Your task to perform on an android device: set the timer Image 0: 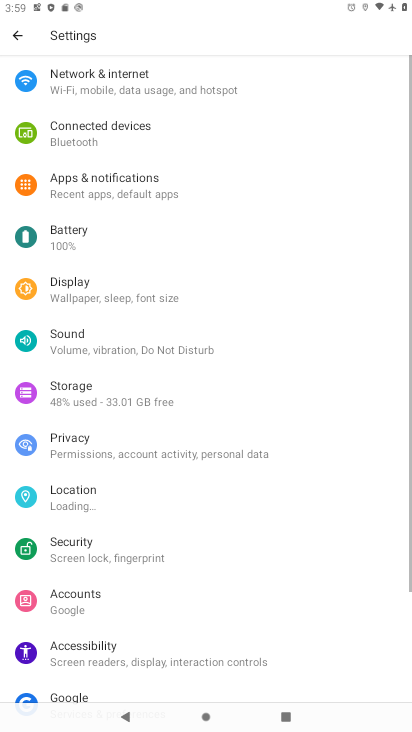
Step 0: drag from (273, 666) to (177, 164)
Your task to perform on an android device: set the timer Image 1: 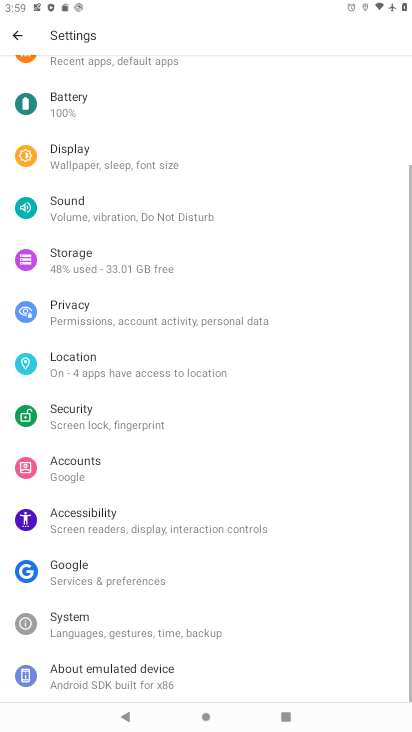
Step 1: click (22, 32)
Your task to perform on an android device: set the timer Image 2: 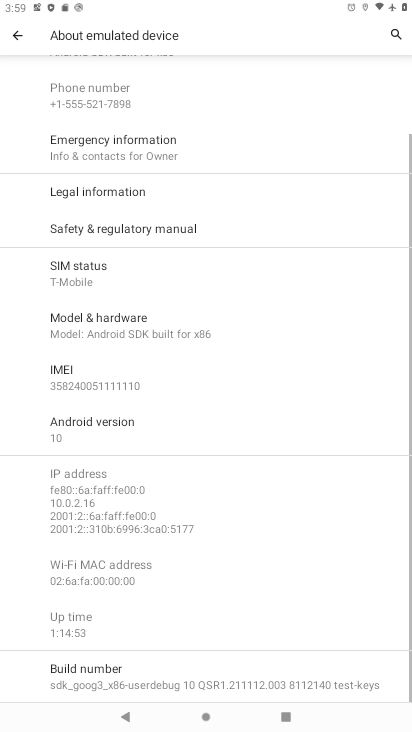
Step 2: press back button
Your task to perform on an android device: set the timer Image 3: 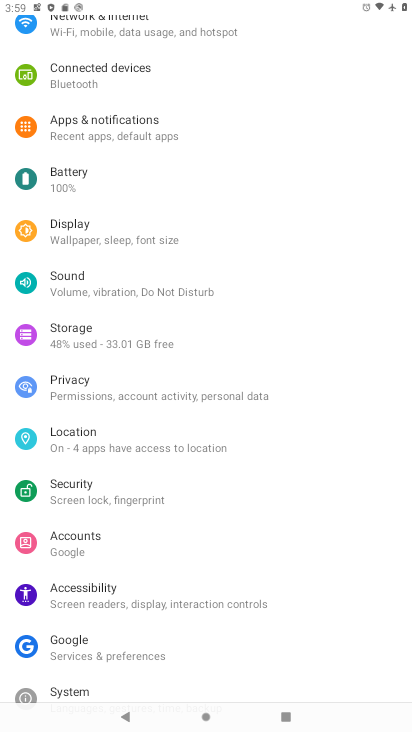
Step 3: press home button
Your task to perform on an android device: set the timer Image 4: 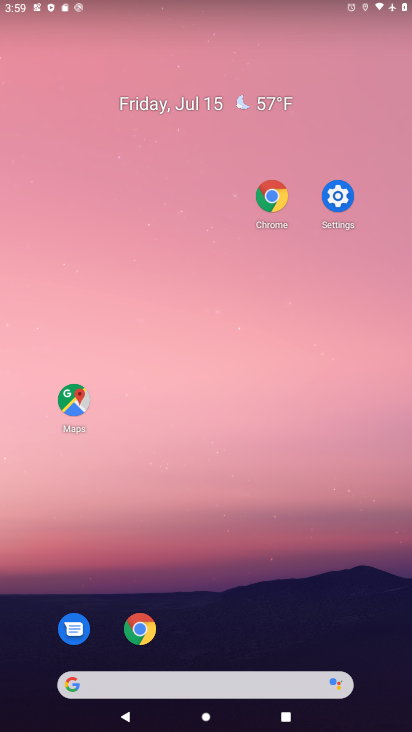
Step 4: drag from (184, 555) to (199, 240)
Your task to perform on an android device: set the timer Image 5: 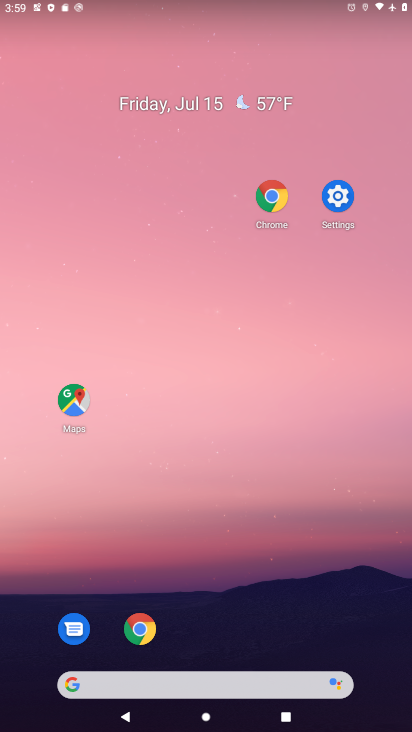
Step 5: drag from (229, 529) to (155, 107)
Your task to perform on an android device: set the timer Image 6: 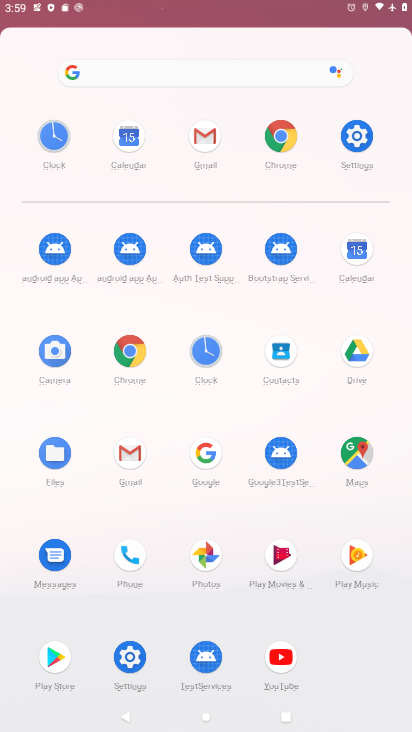
Step 6: drag from (221, 596) to (58, 153)
Your task to perform on an android device: set the timer Image 7: 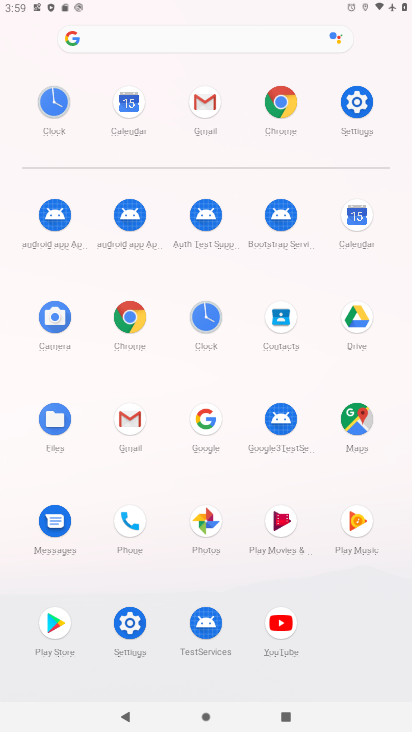
Step 7: click (215, 319)
Your task to perform on an android device: set the timer Image 8: 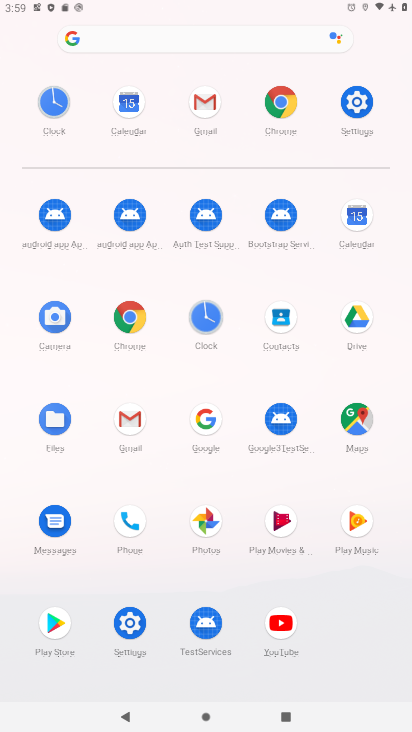
Step 8: click (215, 319)
Your task to perform on an android device: set the timer Image 9: 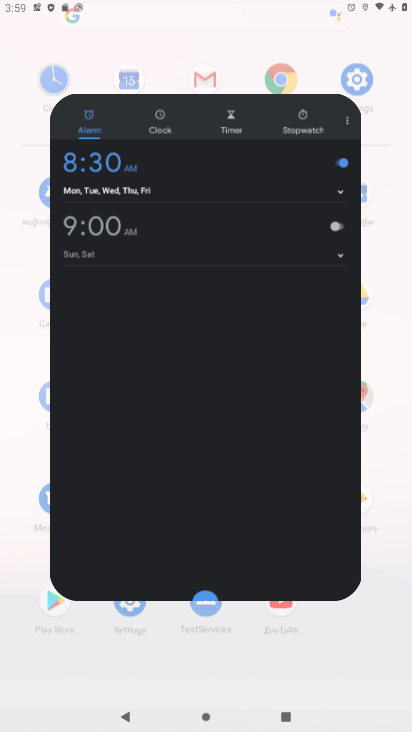
Step 9: click (208, 316)
Your task to perform on an android device: set the timer Image 10: 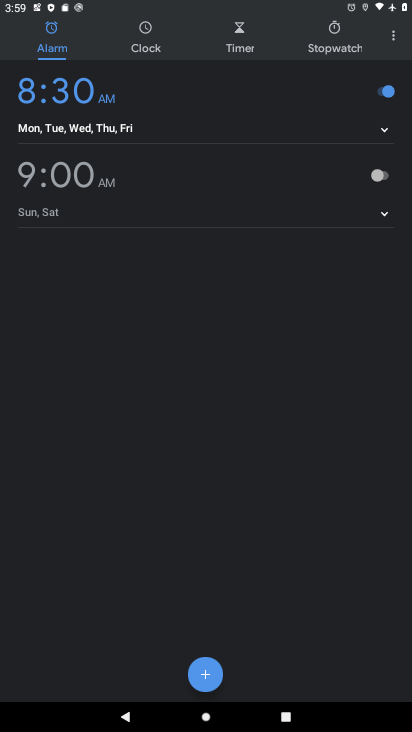
Step 10: click (208, 316)
Your task to perform on an android device: set the timer Image 11: 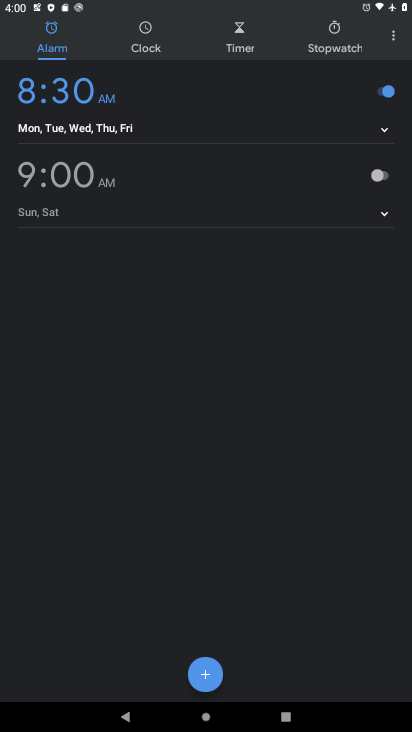
Step 11: click (230, 35)
Your task to perform on an android device: set the timer Image 12: 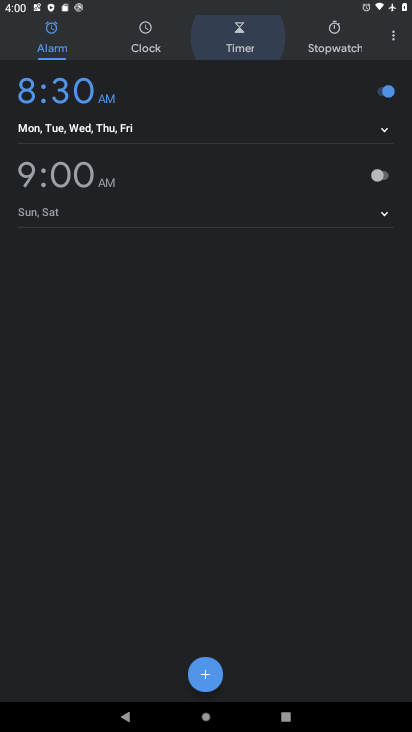
Step 12: click (230, 35)
Your task to perform on an android device: set the timer Image 13: 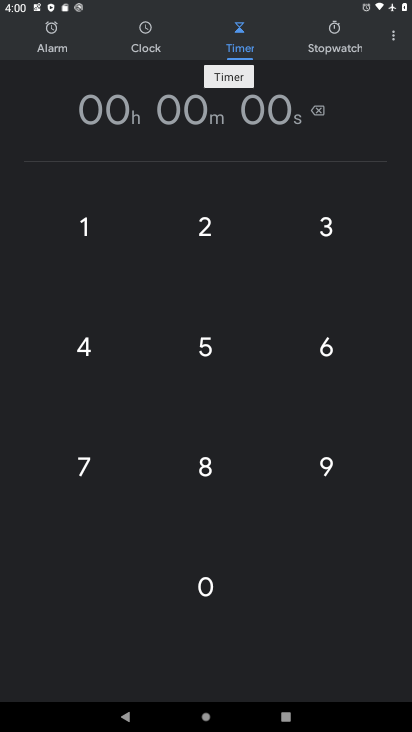
Step 13: click (206, 335)
Your task to perform on an android device: set the timer Image 14: 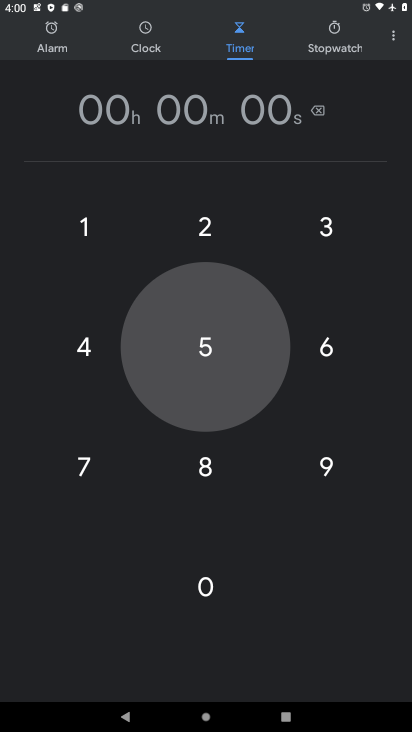
Step 14: click (205, 353)
Your task to perform on an android device: set the timer Image 15: 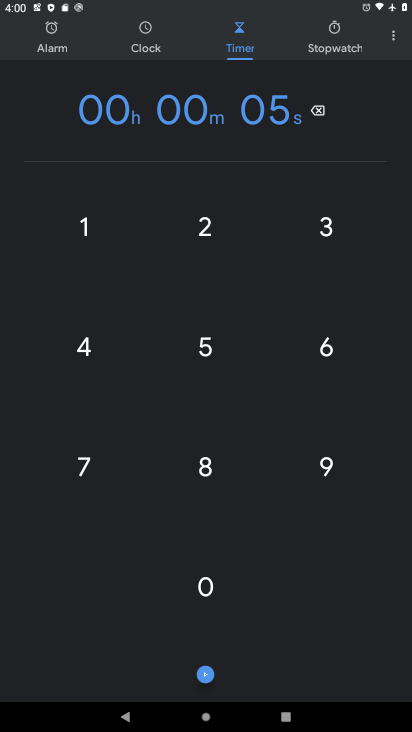
Step 15: click (209, 356)
Your task to perform on an android device: set the timer Image 16: 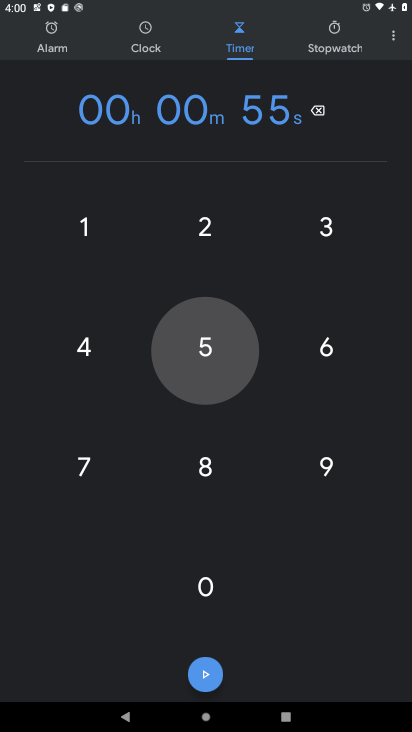
Step 16: click (209, 359)
Your task to perform on an android device: set the timer Image 17: 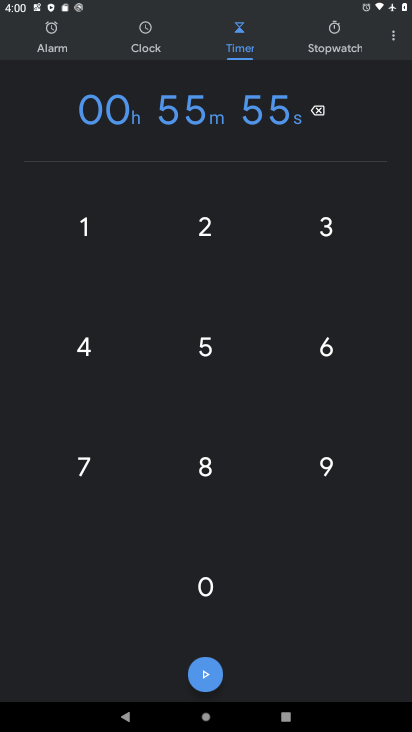
Step 17: click (209, 360)
Your task to perform on an android device: set the timer Image 18: 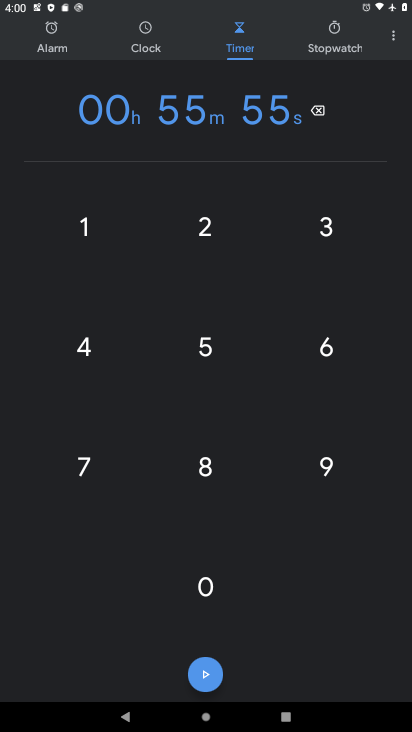
Step 18: click (209, 360)
Your task to perform on an android device: set the timer Image 19: 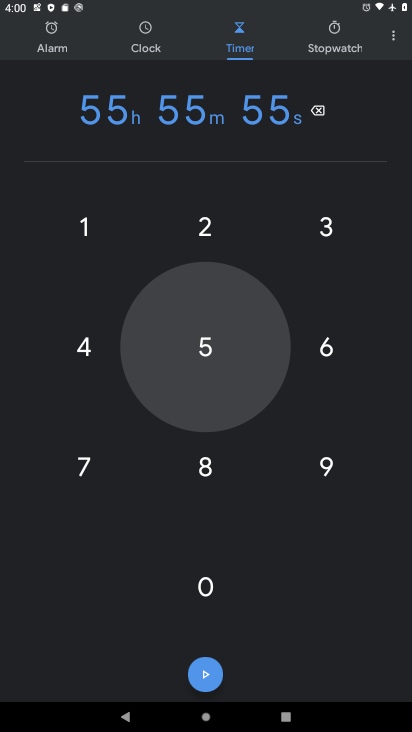
Step 19: click (203, 355)
Your task to perform on an android device: set the timer Image 20: 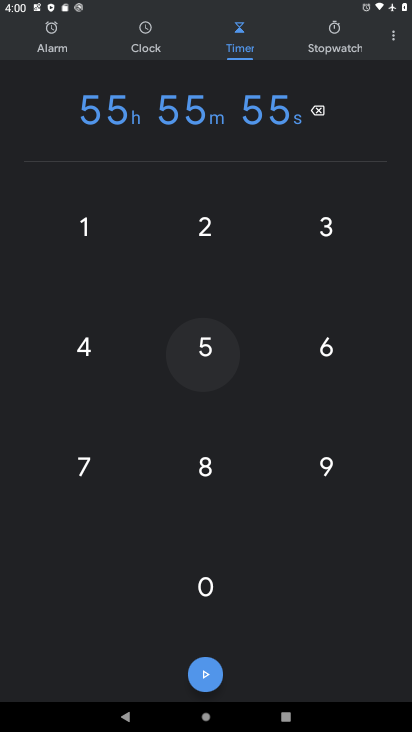
Step 20: click (203, 355)
Your task to perform on an android device: set the timer Image 21: 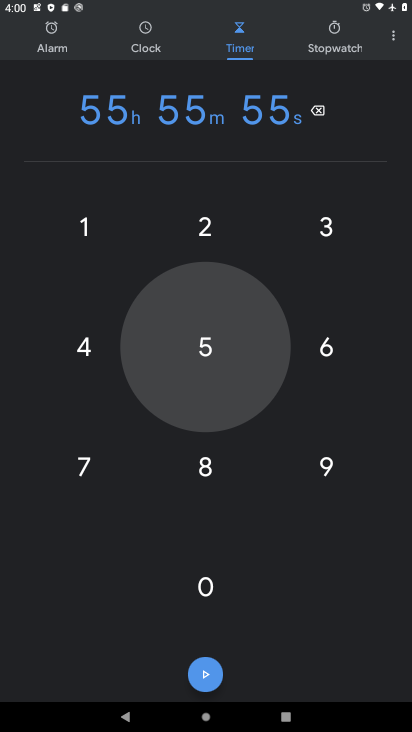
Step 21: click (203, 355)
Your task to perform on an android device: set the timer Image 22: 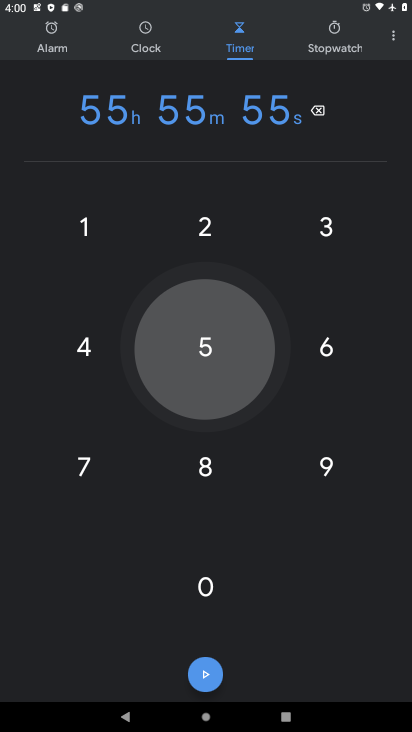
Step 22: click (202, 354)
Your task to perform on an android device: set the timer Image 23: 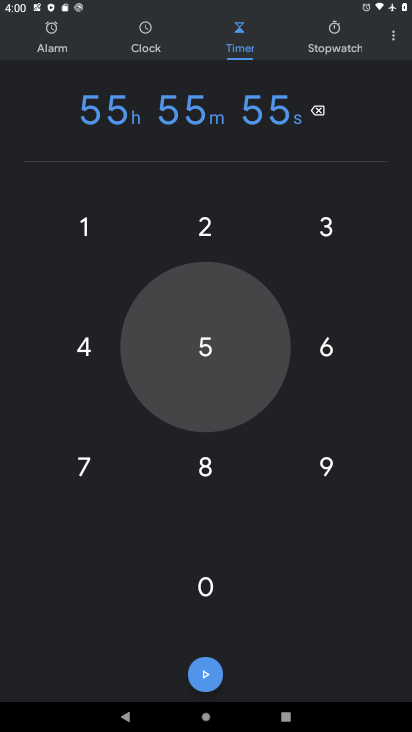
Step 23: click (202, 354)
Your task to perform on an android device: set the timer Image 24: 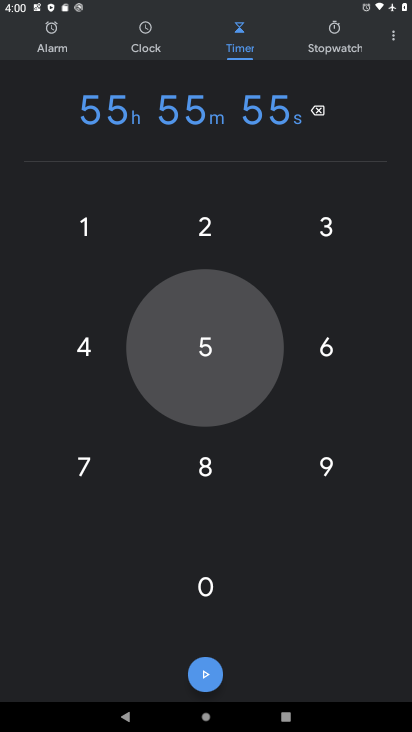
Step 24: click (203, 353)
Your task to perform on an android device: set the timer Image 25: 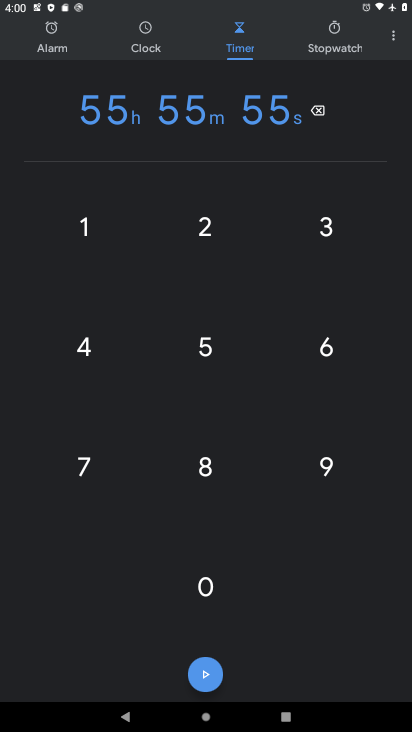
Step 25: click (203, 353)
Your task to perform on an android device: set the timer Image 26: 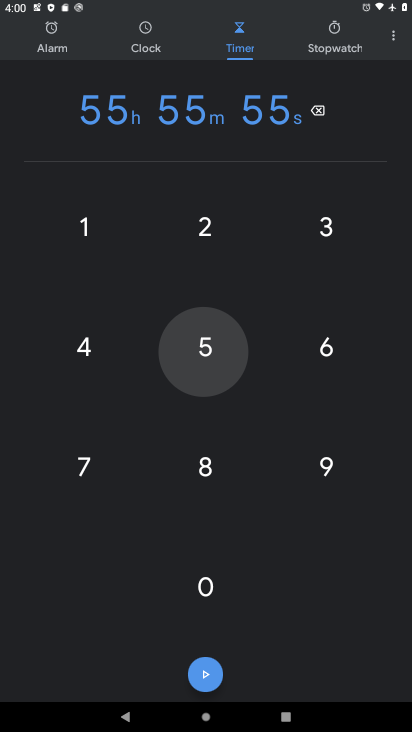
Step 26: click (206, 355)
Your task to perform on an android device: set the timer Image 27: 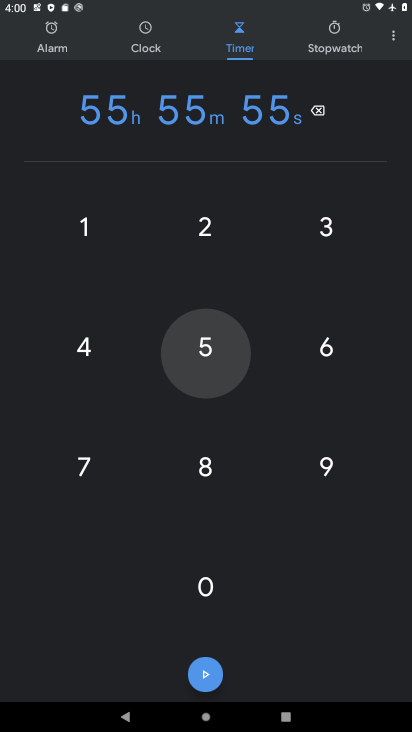
Step 27: click (206, 355)
Your task to perform on an android device: set the timer Image 28: 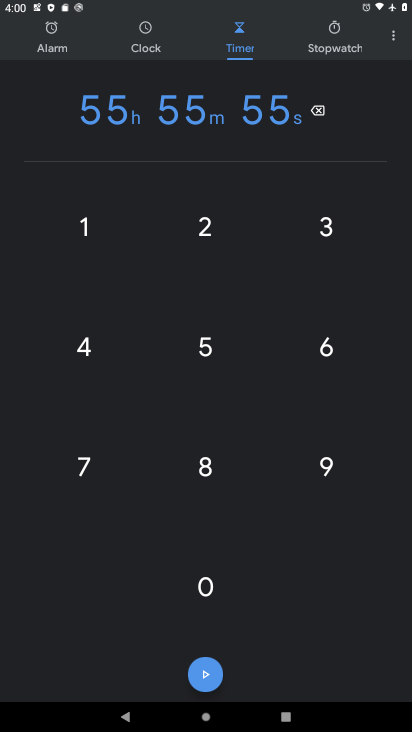
Step 28: click (207, 339)
Your task to perform on an android device: set the timer Image 29: 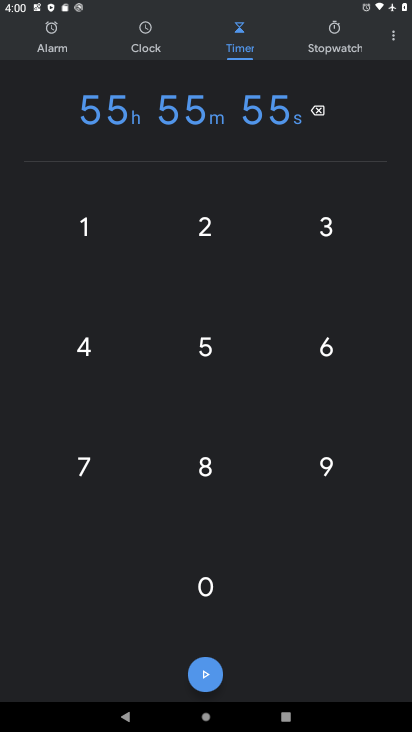
Step 29: click (208, 471)
Your task to perform on an android device: set the timer Image 30: 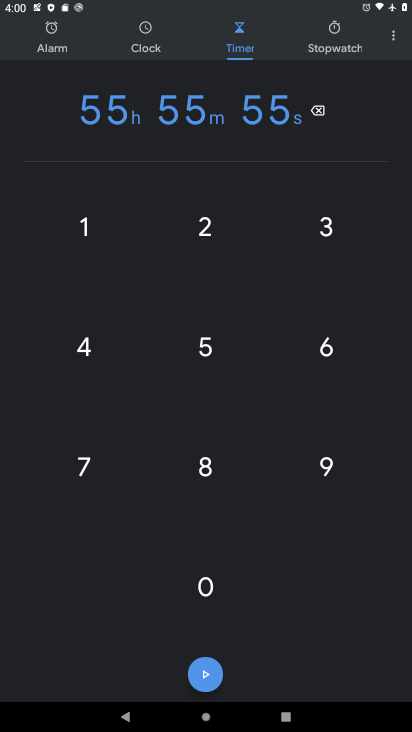
Step 30: click (205, 685)
Your task to perform on an android device: set the timer Image 31: 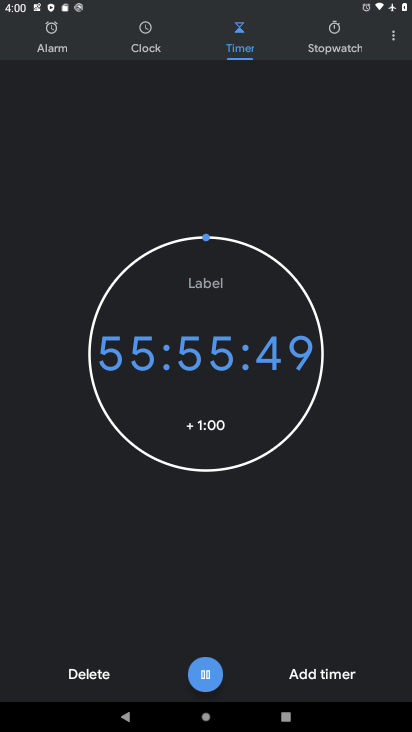
Step 31: click (210, 674)
Your task to perform on an android device: set the timer Image 32: 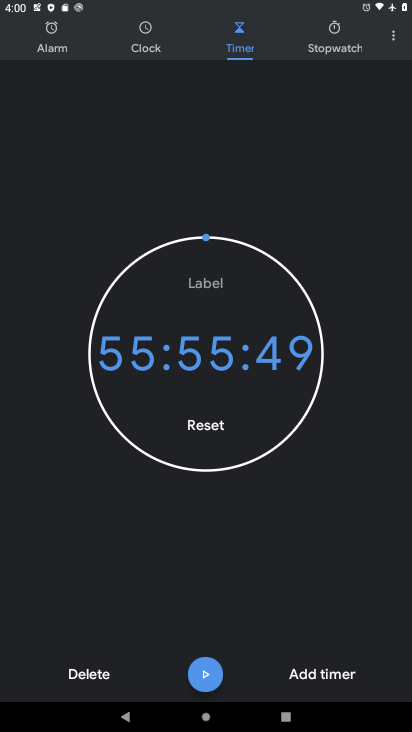
Step 32: click (206, 676)
Your task to perform on an android device: set the timer Image 33: 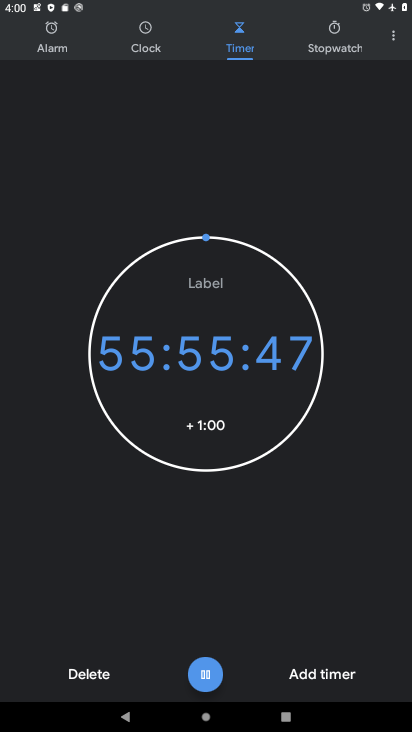
Step 33: click (204, 671)
Your task to perform on an android device: set the timer Image 34: 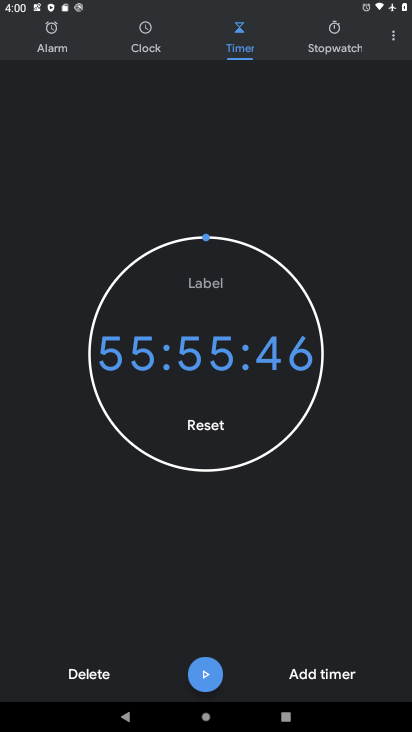
Step 34: task complete